Your task to perform on an android device: turn on improve location accuracy Image 0: 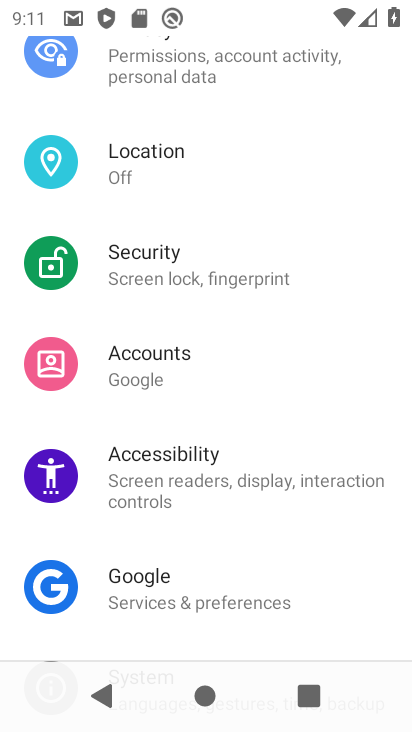
Step 0: click (216, 175)
Your task to perform on an android device: turn on improve location accuracy Image 1: 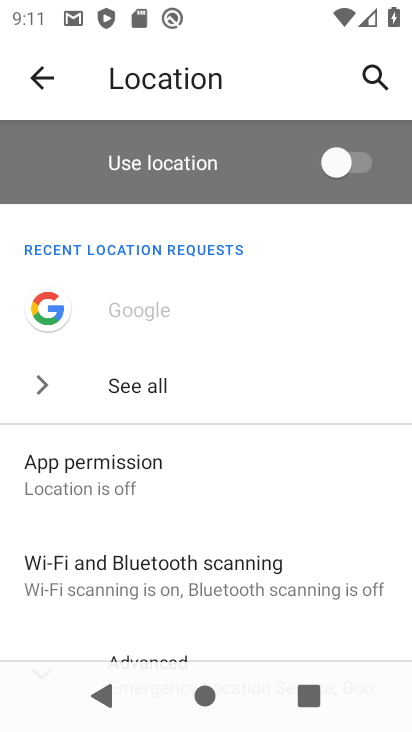
Step 1: drag from (179, 486) to (195, 206)
Your task to perform on an android device: turn on improve location accuracy Image 2: 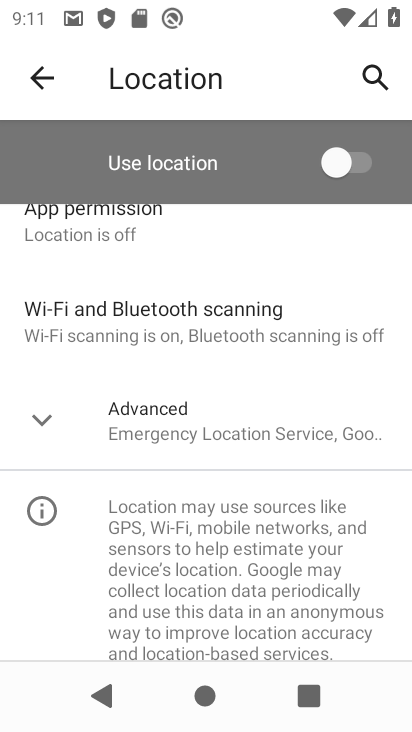
Step 2: click (45, 424)
Your task to perform on an android device: turn on improve location accuracy Image 3: 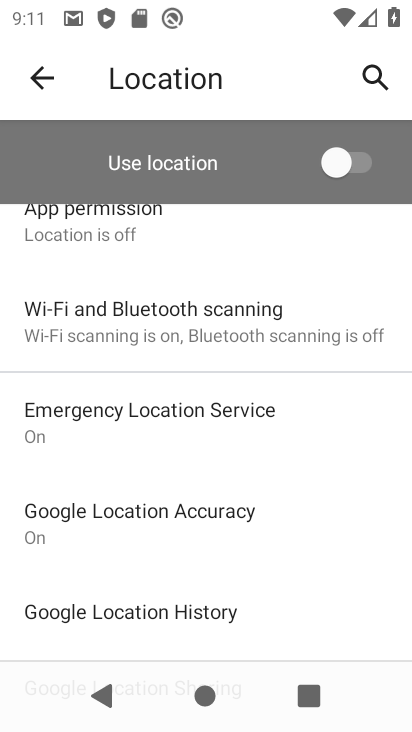
Step 3: task complete